Your task to perform on an android device: Go to ESPN.com Image 0: 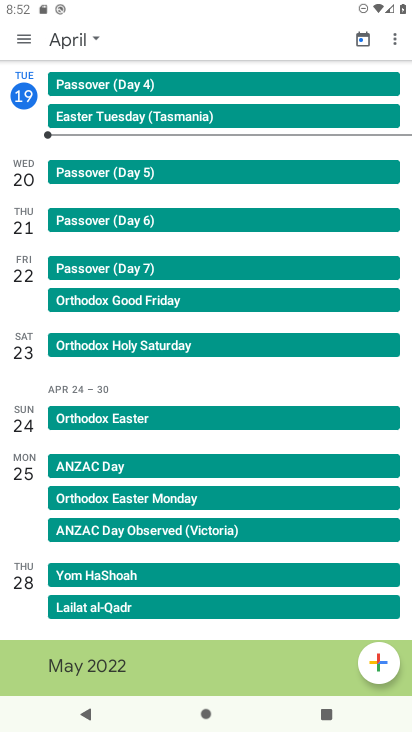
Step 0: press home button
Your task to perform on an android device: Go to ESPN.com Image 1: 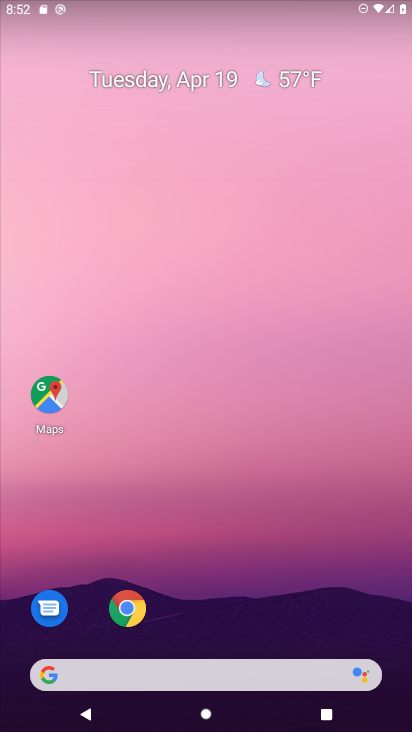
Step 1: click (167, 678)
Your task to perform on an android device: Go to ESPN.com Image 2: 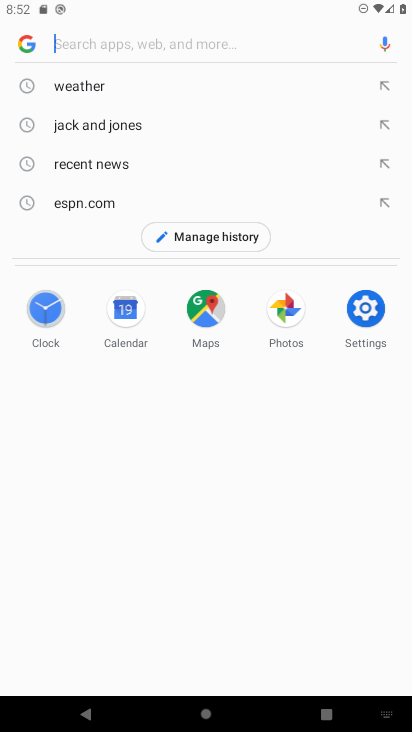
Step 2: click (99, 208)
Your task to perform on an android device: Go to ESPN.com Image 3: 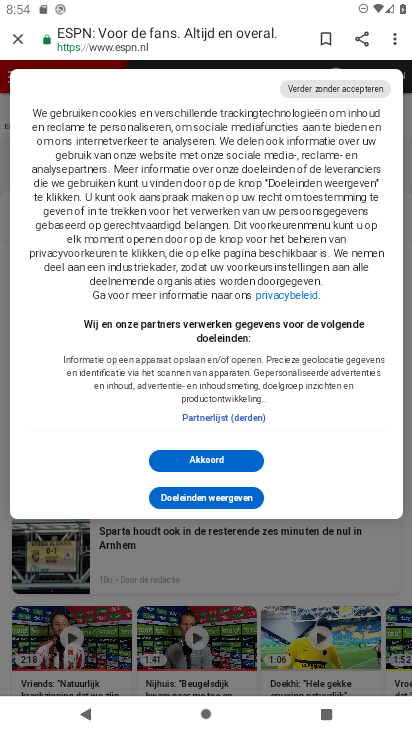
Step 3: task complete